Your task to perform on an android device: Go to notification settings Image 0: 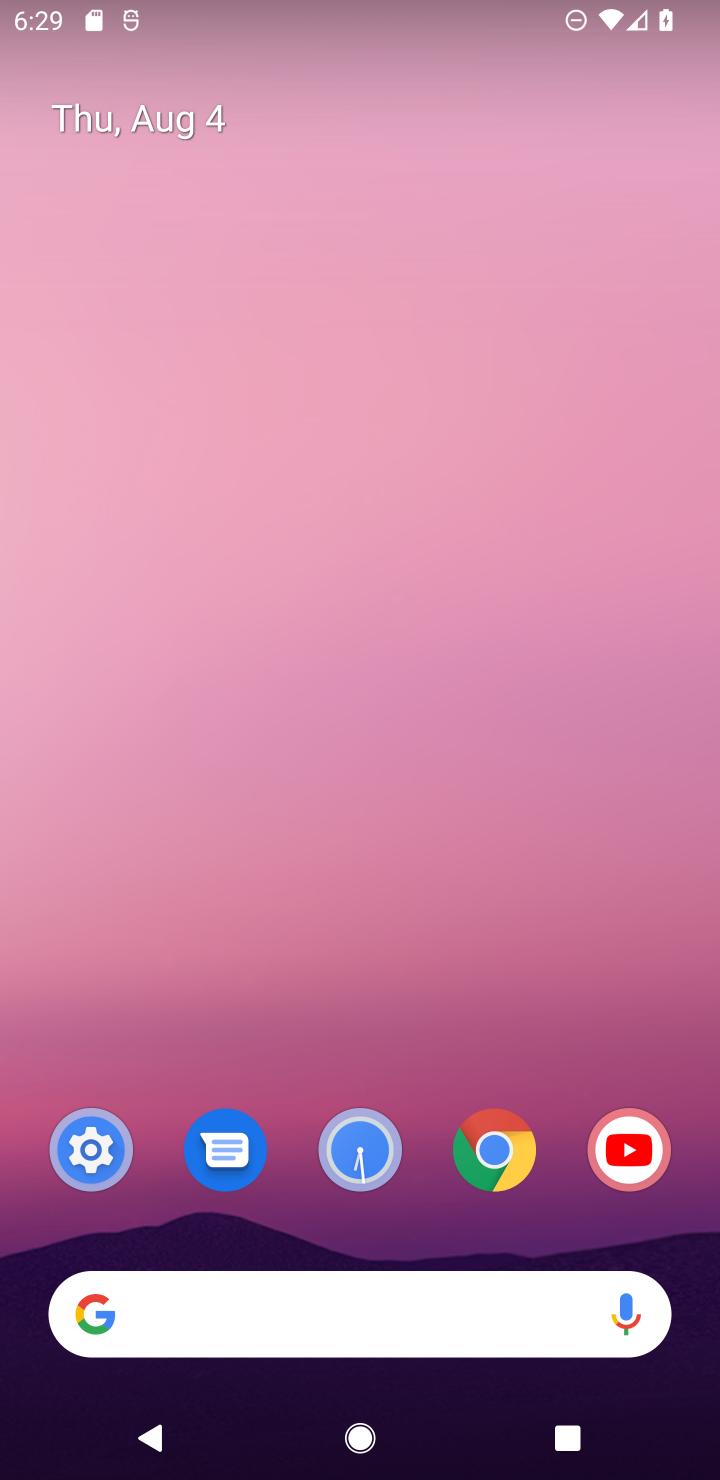
Step 0: drag from (333, 1294) to (543, 61)
Your task to perform on an android device: Go to notification settings Image 1: 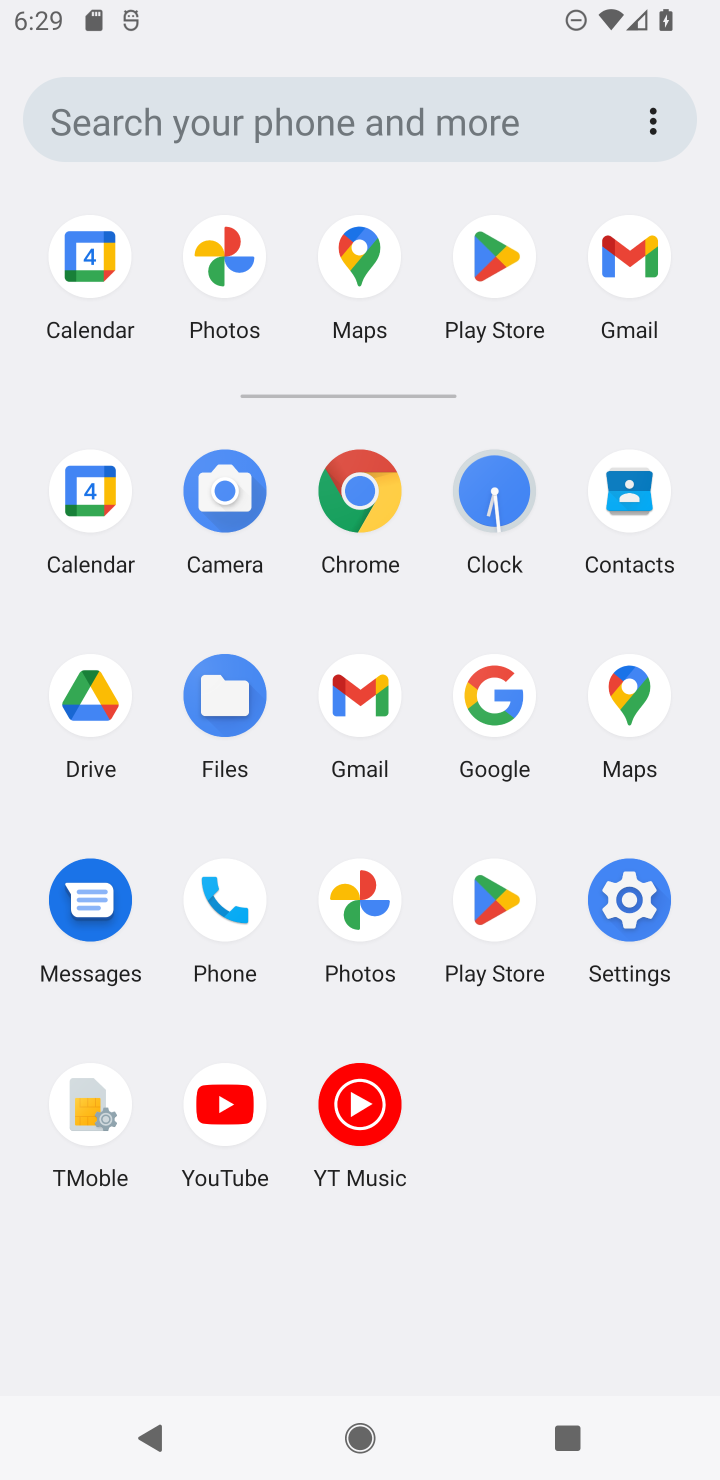
Step 1: click (613, 896)
Your task to perform on an android device: Go to notification settings Image 2: 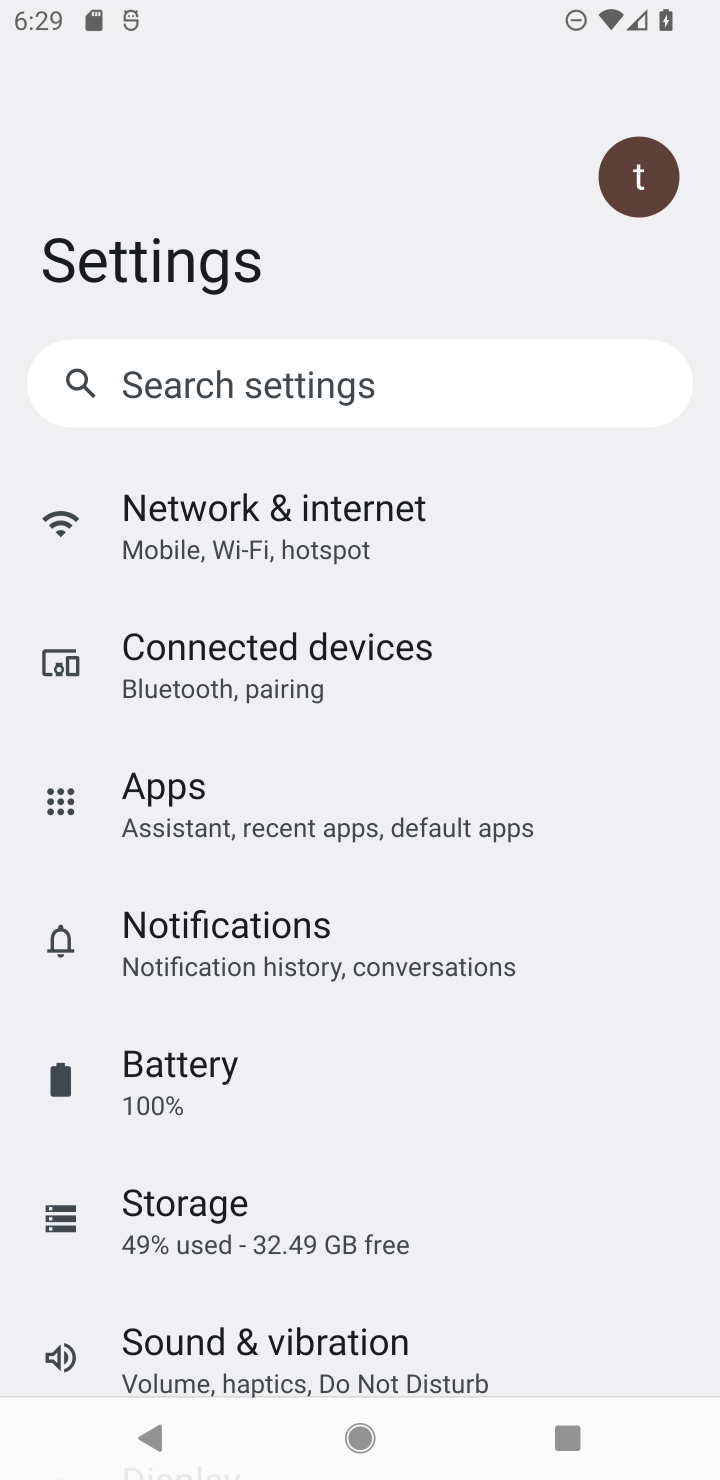
Step 2: click (322, 944)
Your task to perform on an android device: Go to notification settings Image 3: 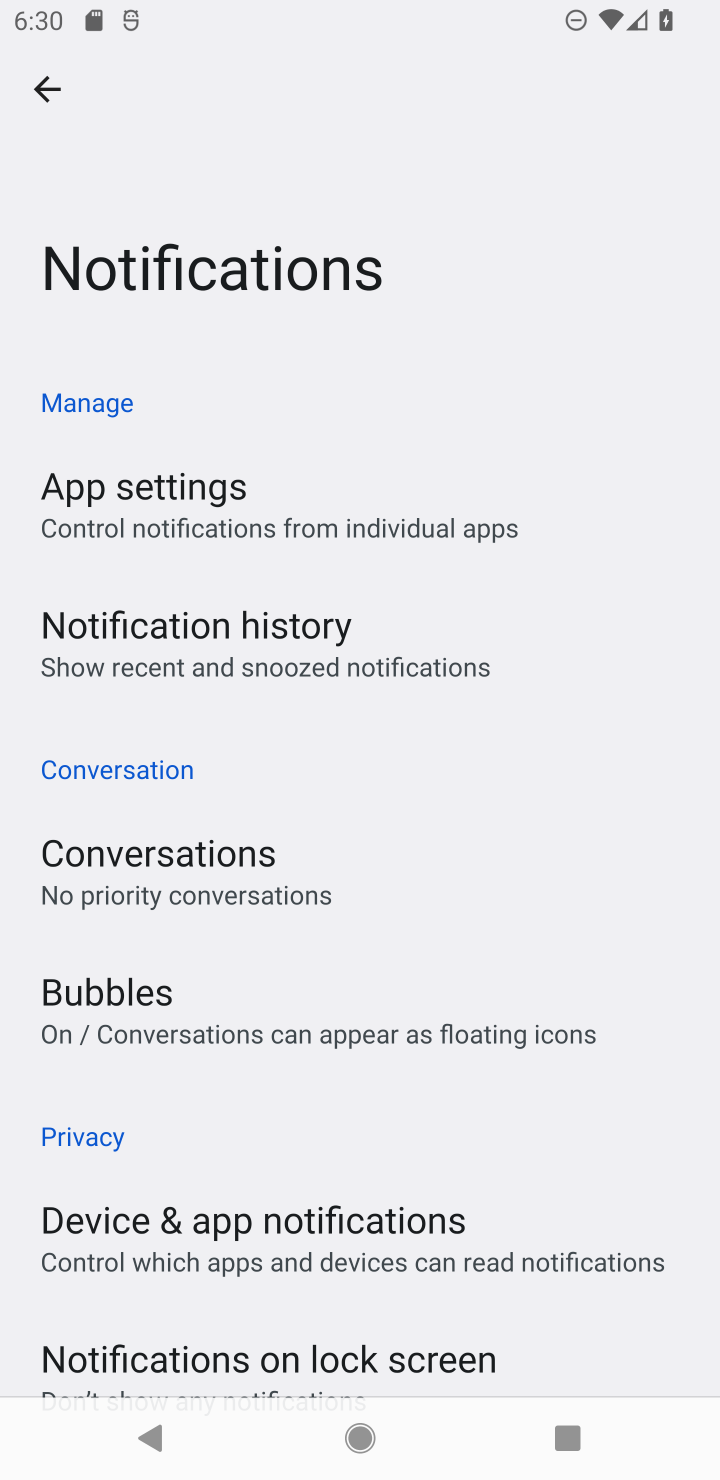
Step 3: task complete